Your task to perform on an android device: Open Reddit.com Image 0: 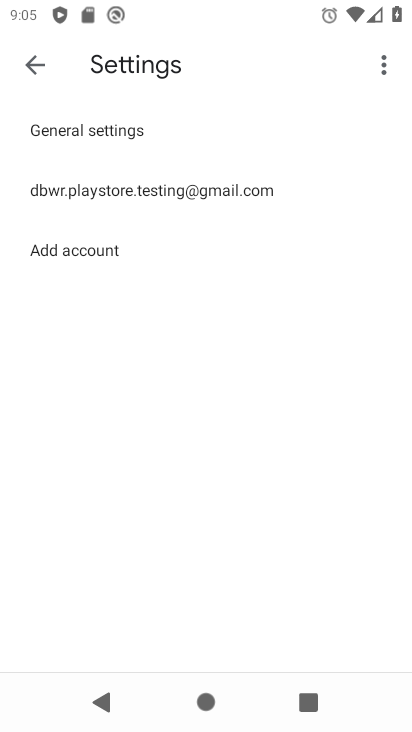
Step 0: press home button
Your task to perform on an android device: Open Reddit.com Image 1: 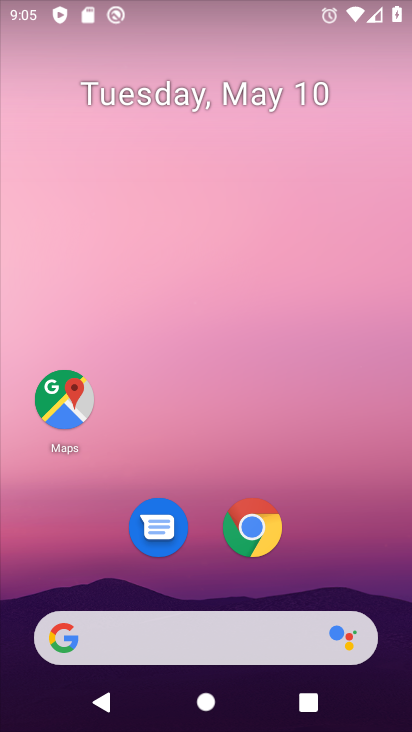
Step 1: click (261, 523)
Your task to perform on an android device: Open Reddit.com Image 2: 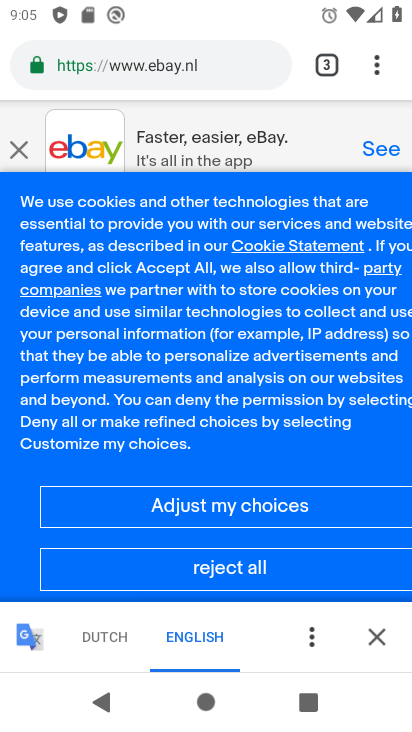
Step 2: click (325, 63)
Your task to perform on an android device: Open Reddit.com Image 3: 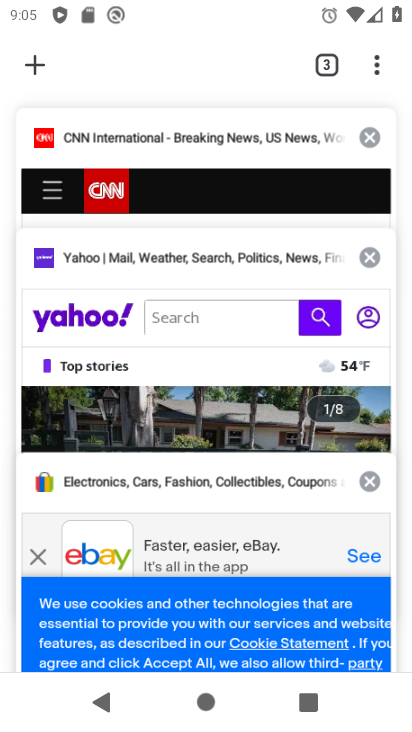
Step 3: click (33, 63)
Your task to perform on an android device: Open Reddit.com Image 4: 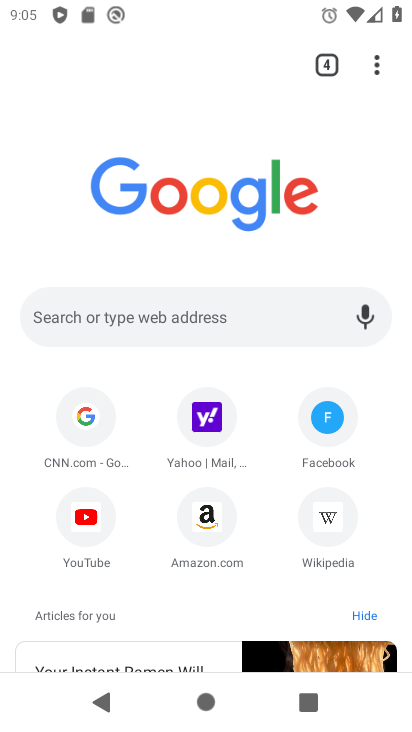
Step 4: click (194, 322)
Your task to perform on an android device: Open Reddit.com Image 5: 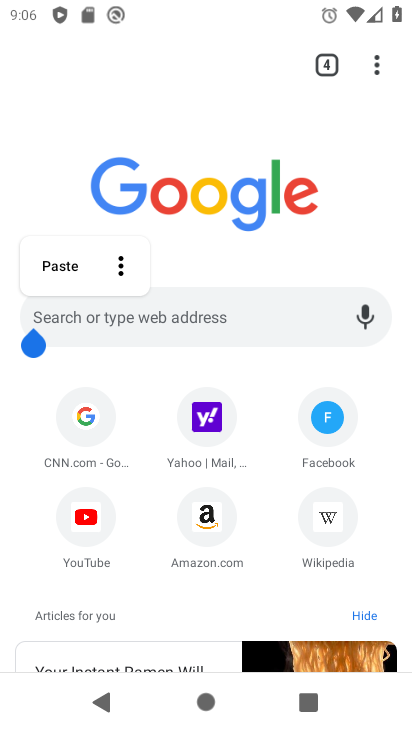
Step 5: type "r"
Your task to perform on an android device: Open Reddit.com Image 6: 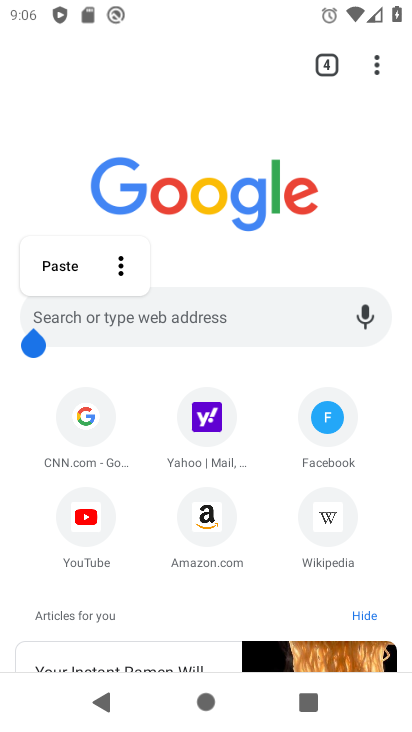
Step 6: click (248, 314)
Your task to perform on an android device: Open Reddit.com Image 7: 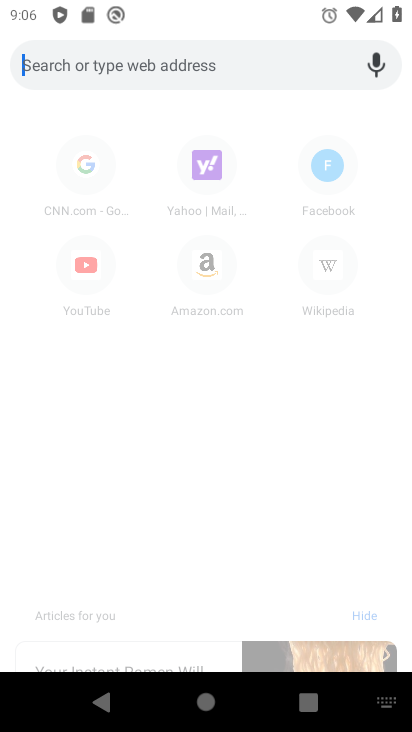
Step 7: type "reddit"
Your task to perform on an android device: Open Reddit.com Image 8: 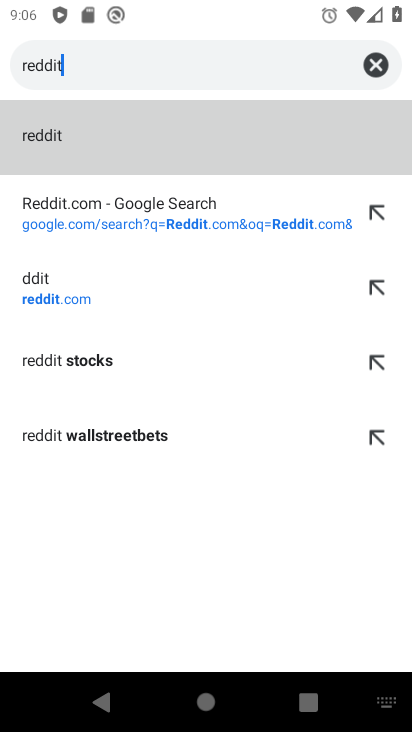
Step 8: click (115, 222)
Your task to perform on an android device: Open Reddit.com Image 9: 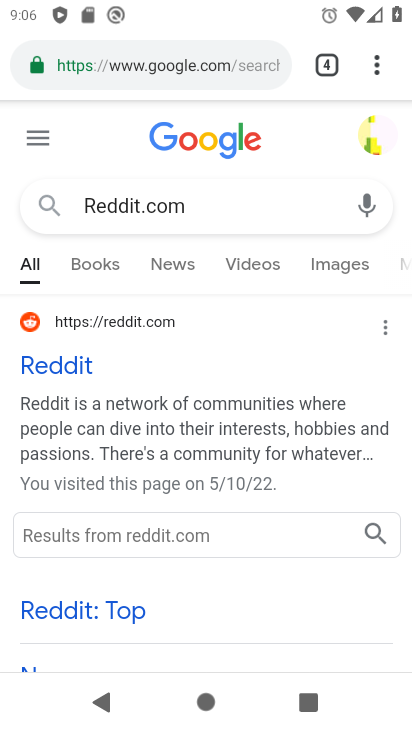
Step 9: click (66, 361)
Your task to perform on an android device: Open Reddit.com Image 10: 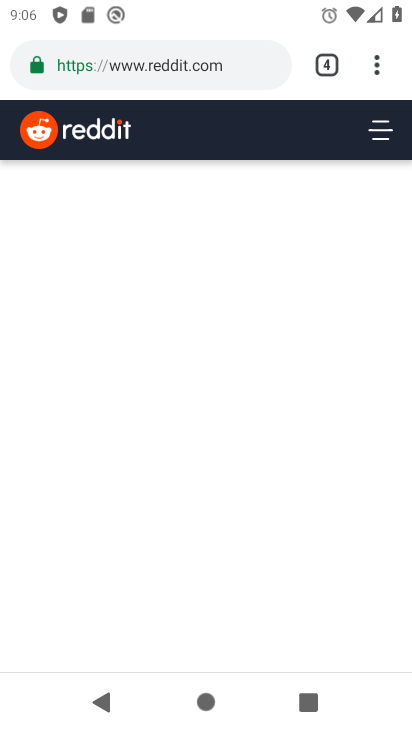
Step 10: task complete